Your task to perform on an android device: Open Android settings Image 0: 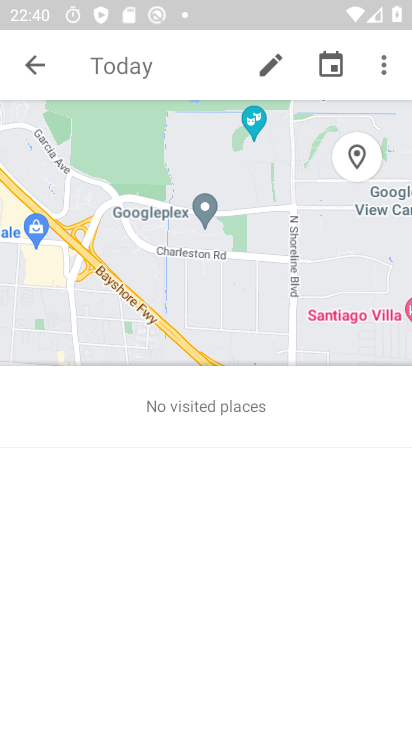
Step 0: click (257, 8)
Your task to perform on an android device: Open Android settings Image 1: 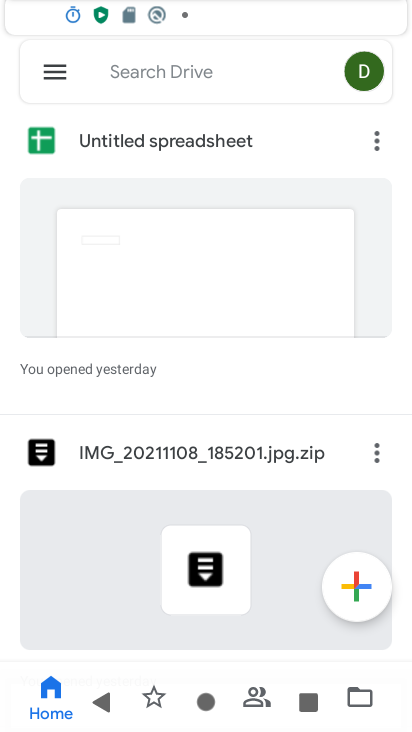
Step 1: press home button
Your task to perform on an android device: Open Android settings Image 2: 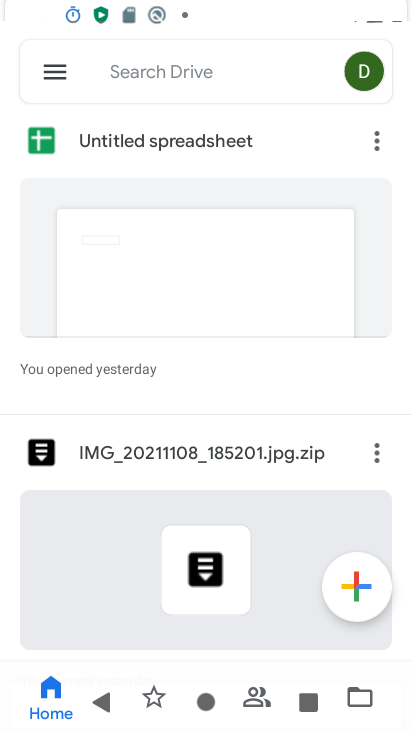
Step 2: drag from (257, 8) to (112, 721)
Your task to perform on an android device: Open Android settings Image 3: 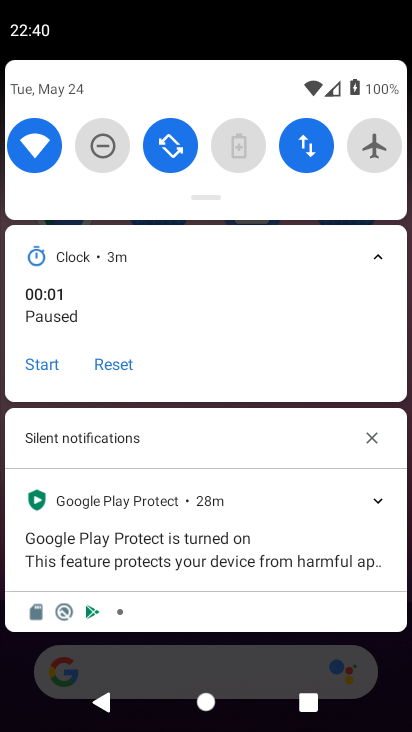
Step 3: drag from (213, 624) to (131, 1)
Your task to perform on an android device: Open Android settings Image 4: 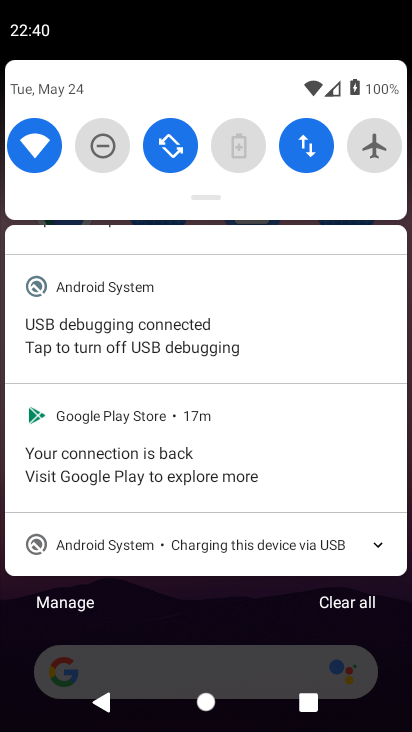
Step 4: drag from (227, 661) to (239, 137)
Your task to perform on an android device: Open Android settings Image 5: 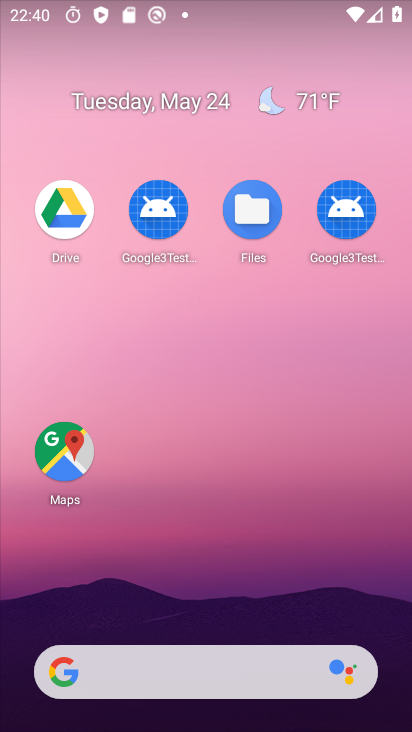
Step 5: drag from (221, 590) to (186, 108)
Your task to perform on an android device: Open Android settings Image 6: 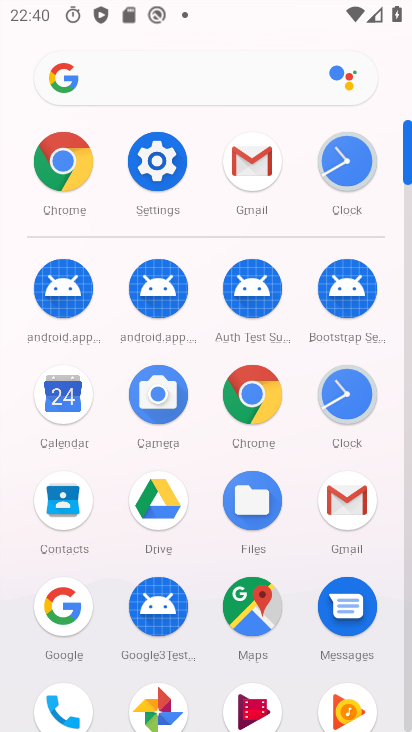
Step 6: click (161, 179)
Your task to perform on an android device: Open Android settings Image 7: 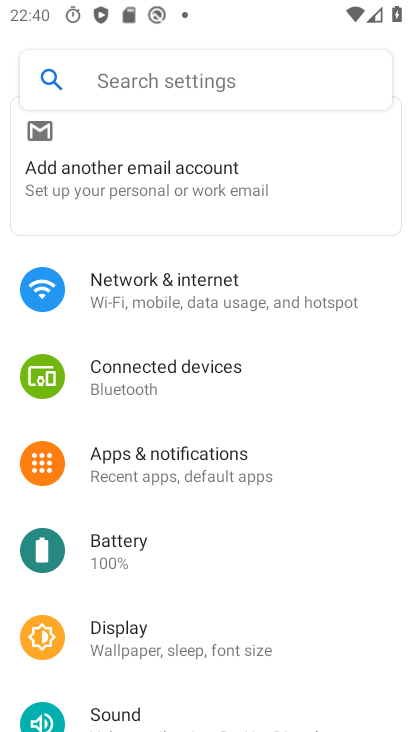
Step 7: task complete